Your task to perform on an android device: turn off picture-in-picture Image 0: 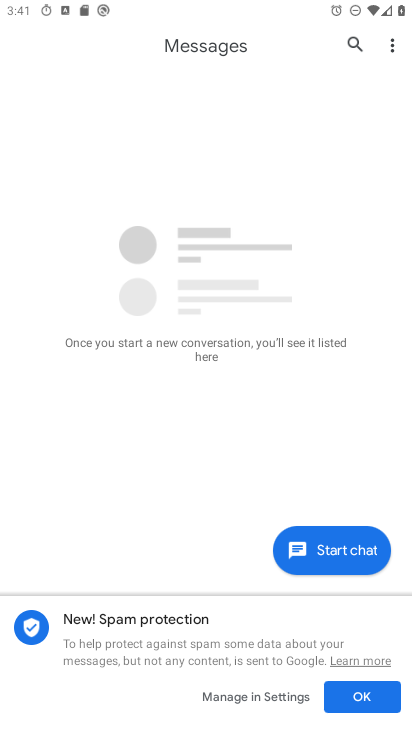
Step 0: press home button
Your task to perform on an android device: turn off picture-in-picture Image 1: 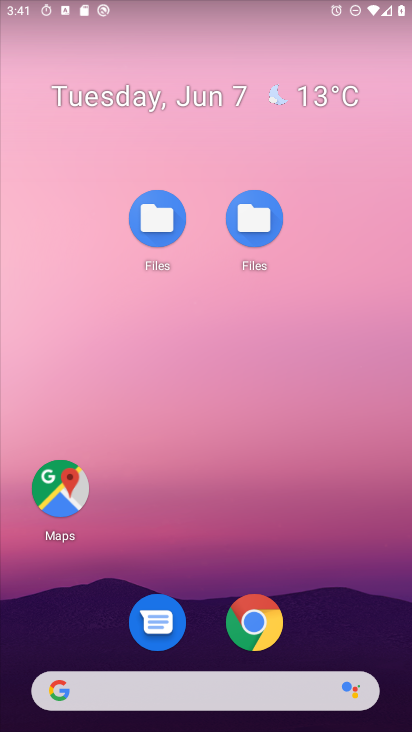
Step 1: drag from (375, 561) to (387, 279)
Your task to perform on an android device: turn off picture-in-picture Image 2: 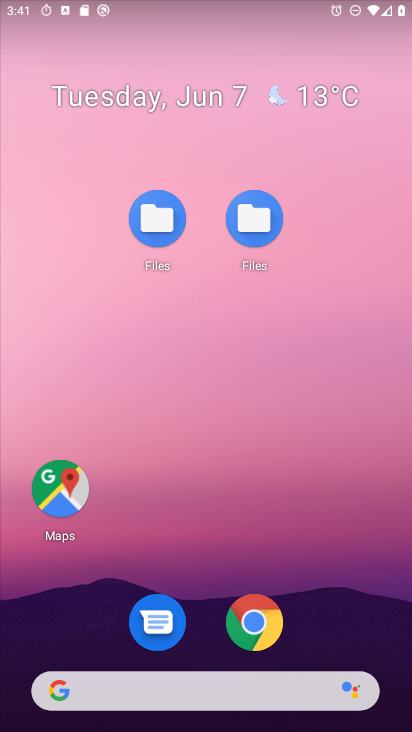
Step 2: drag from (366, 487) to (390, 173)
Your task to perform on an android device: turn off picture-in-picture Image 3: 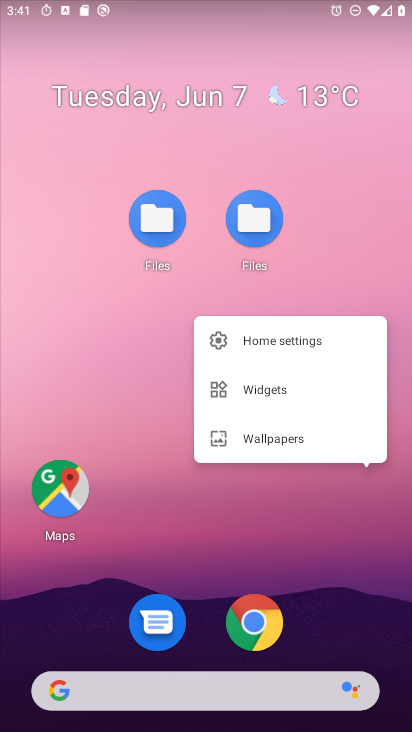
Step 3: click (150, 336)
Your task to perform on an android device: turn off picture-in-picture Image 4: 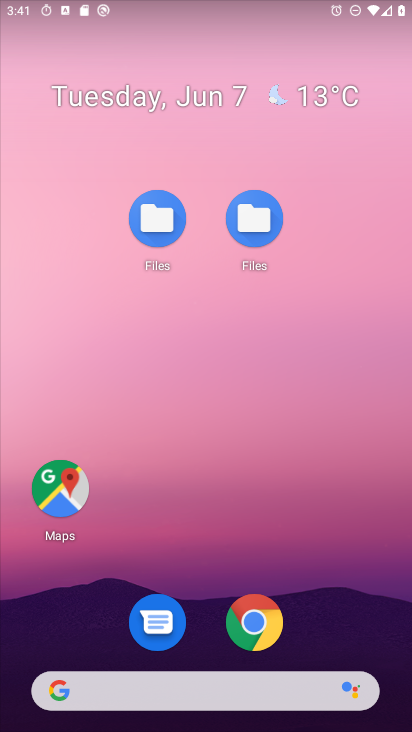
Step 4: drag from (340, 608) to (383, 259)
Your task to perform on an android device: turn off picture-in-picture Image 5: 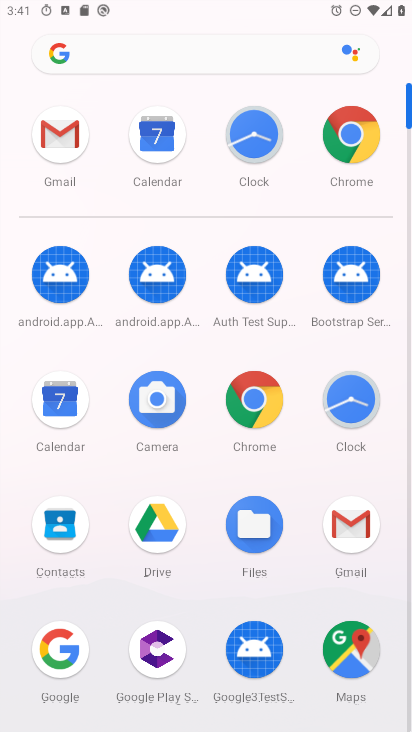
Step 5: click (409, 393)
Your task to perform on an android device: turn off picture-in-picture Image 6: 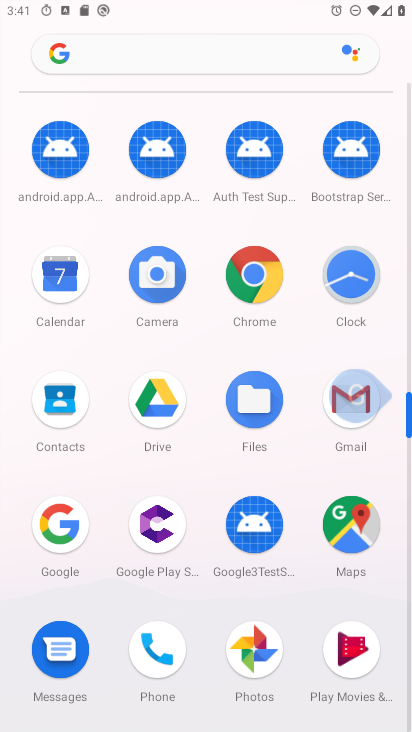
Step 6: click (406, 391)
Your task to perform on an android device: turn off picture-in-picture Image 7: 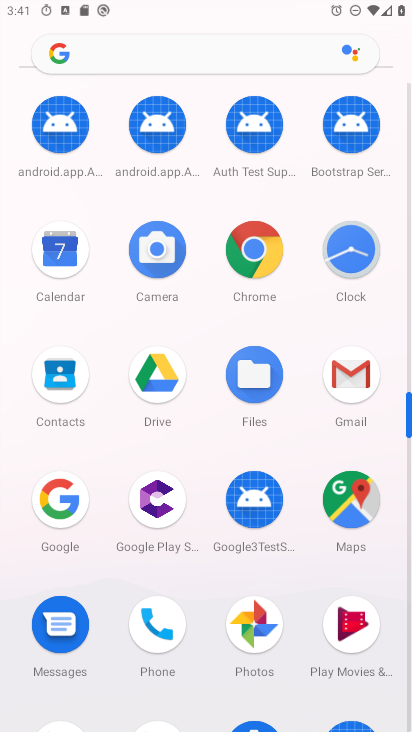
Step 7: click (406, 376)
Your task to perform on an android device: turn off picture-in-picture Image 8: 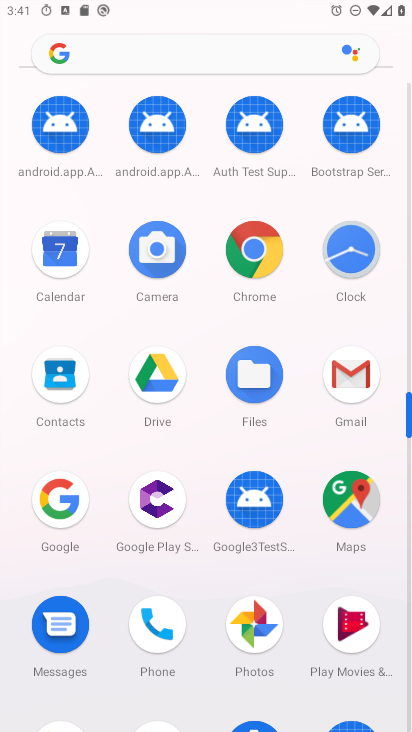
Step 8: click (403, 581)
Your task to perform on an android device: turn off picture-in-picture Image 9: 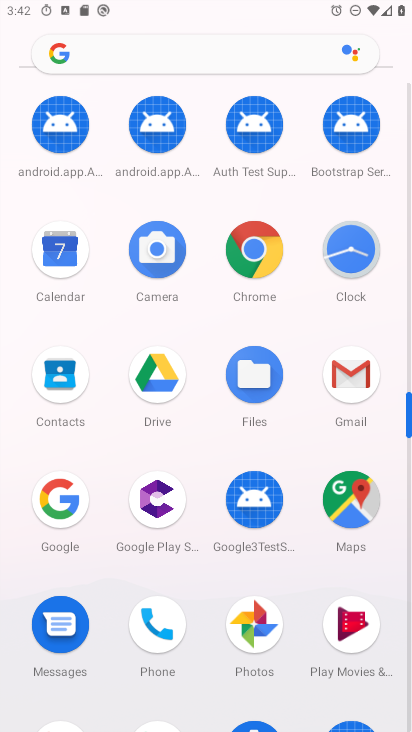
Step 9: click (409, 585)
Your task to perform on an android device: turn off picture-in-picture Image 10: 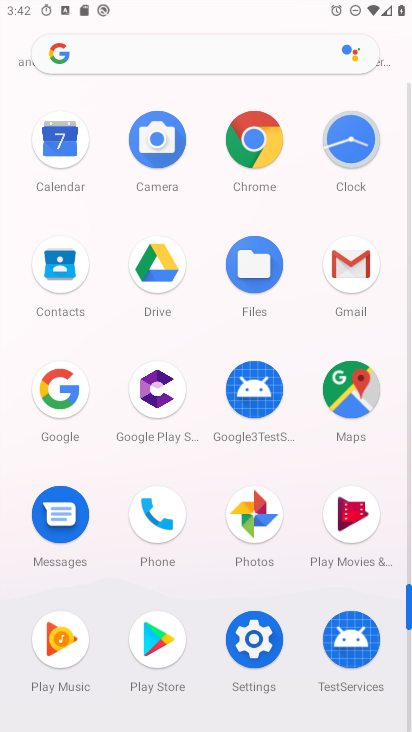
Step 10: click (247, 635)
Your task to perform on an android device: turn off picture-in-picture Image 11: 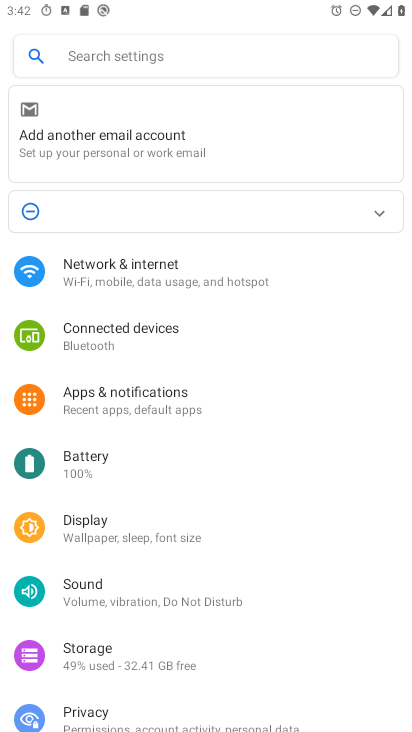
Step 11: click (165, 55)
Your task to perform on an android device: turn off picture-in-picture Image 12: 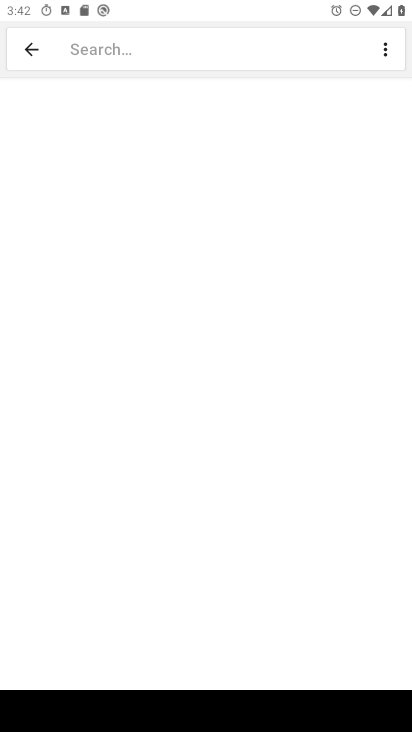
Step 12: type "picture in picture"
Your task to perform on an android device: turn off picture-in-picture Image 13: 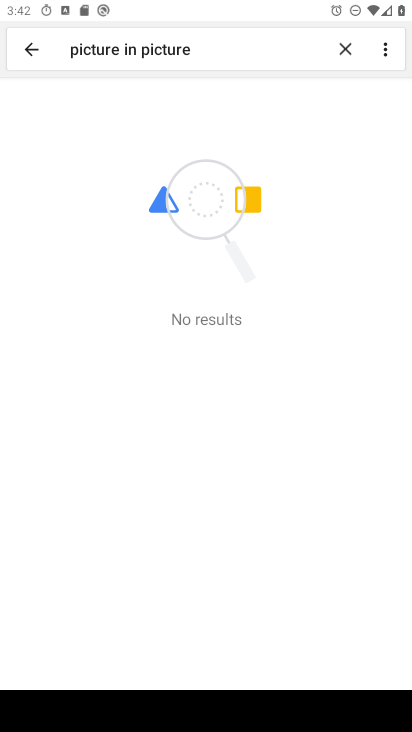
Step 13: task complete